Your task to perform on an android device: Open notification settings Image 0: 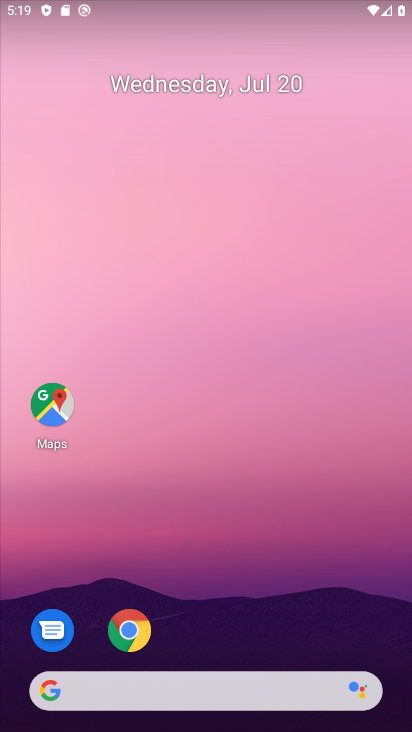
Step 0: drag from (290, 605) to (285, 27)
Your task to perform on an android device: Open notification settings Image 1: 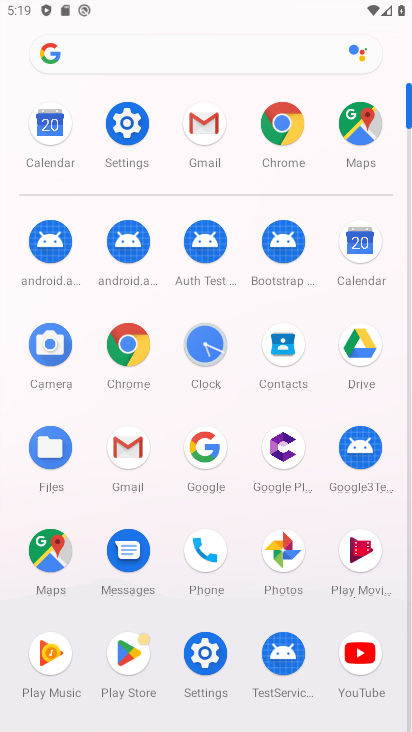
Step 1: click (114, 131)
Your task to perform on an android device: Open notification settings Image 2: 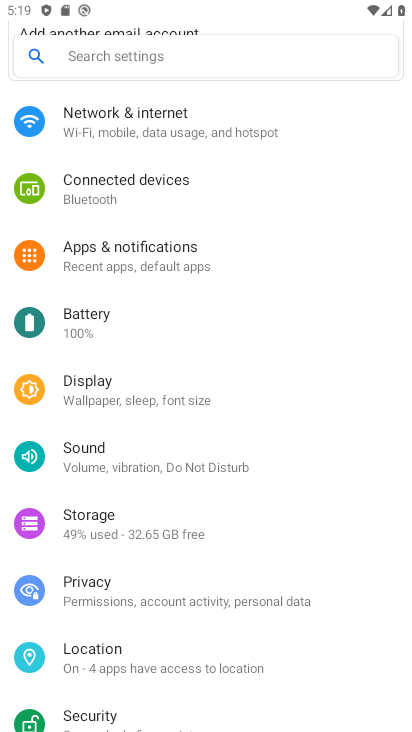
Step 2: click (135, 254)
Your task to perform on an android device: Open notification settings Image 3: 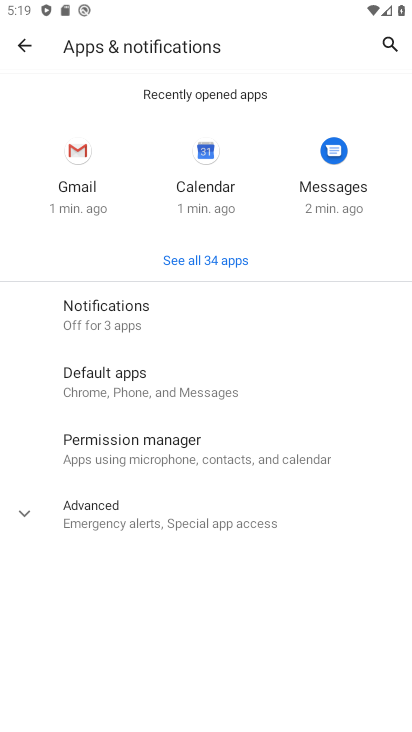
Step 3: click (116, 321)
Your task to perform on an android device: Open notification settings Image 4: 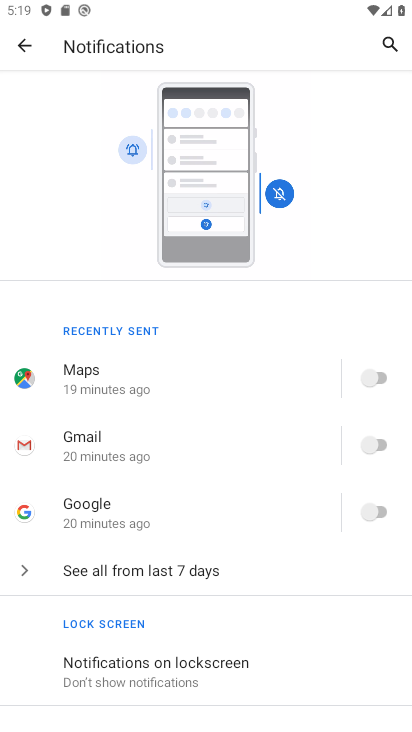
Step 4: task complete